Your task to perform on an android device: turn on priority inbox in the gmail app Image 0: 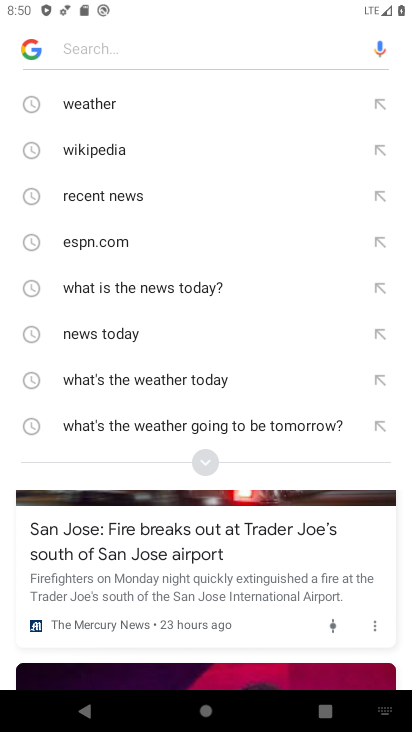
Step 0: press home button
Your task to perform on an android device: turn on priority inbox in the gmail app Image 1: 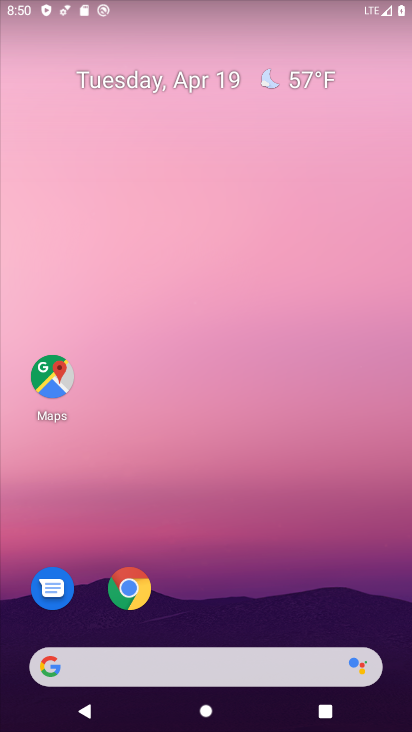
Step 1: drag from (252, 552) to (300, 114)
Your task to perform on an android device: turn on priority inbox in the gmail app Image 2: 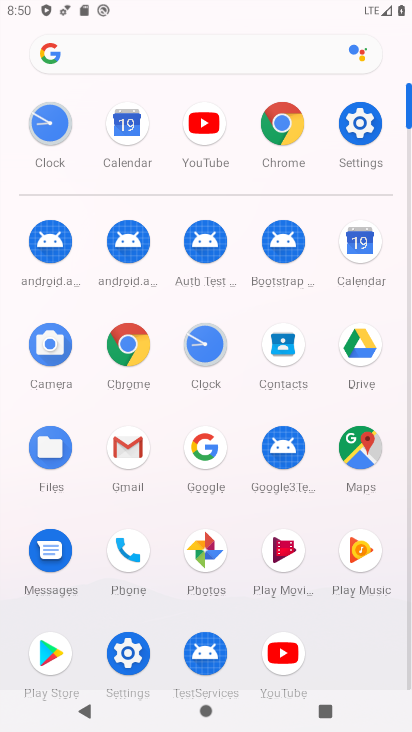
Step 2: click (122, 454)
Your task to perform on an android device: turn on priority inbox in the gmail app Image 3: 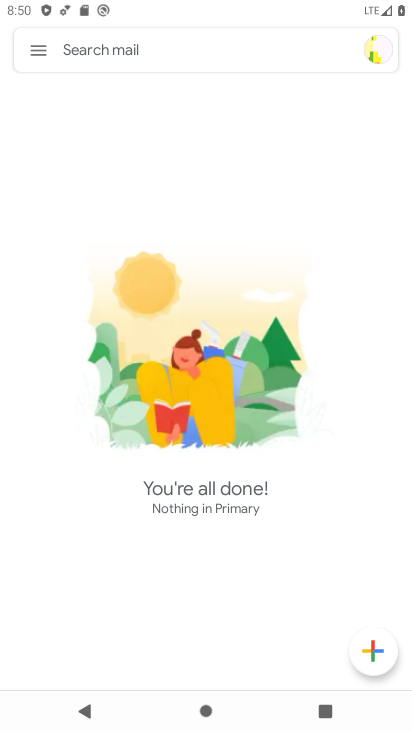
Step 3: click (26, 45)
Your task to perform on an android device: turn on priority inbox in the gmail app Image 4: 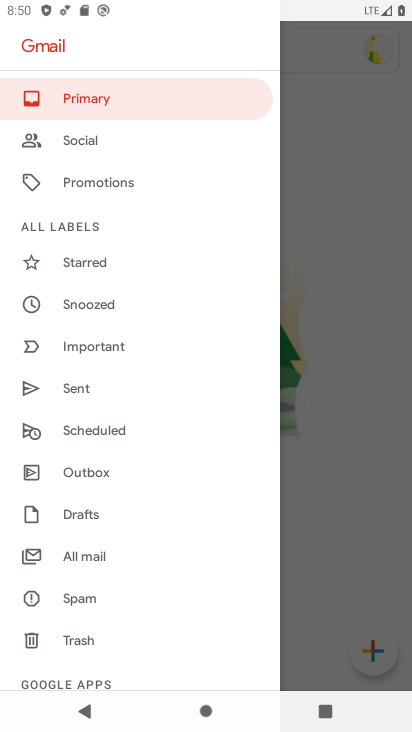
Step 4: drag from (54, 661) to (101, 449)
Your task to perform on an android device: turn on priority inbox in the gmail app Image 5: 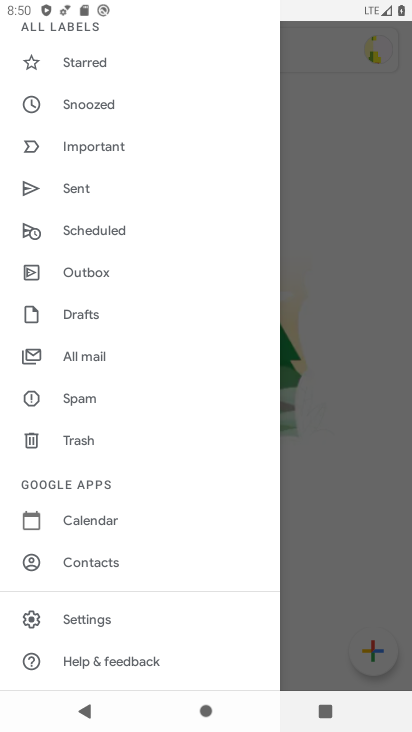
Step 5: click (127, 622)
Your task to perform on an android device: turn on priority inbox in the gmail app Image 6: 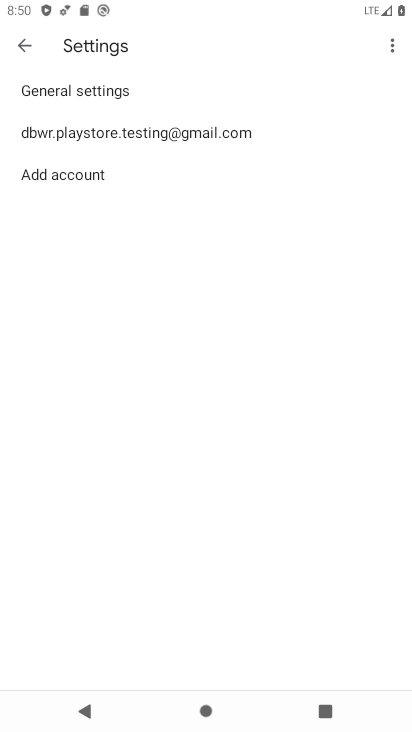
Step 6: click (175, 133)
Your task to perform on an android device: turn on priority inbox in the gmail app Image 7: 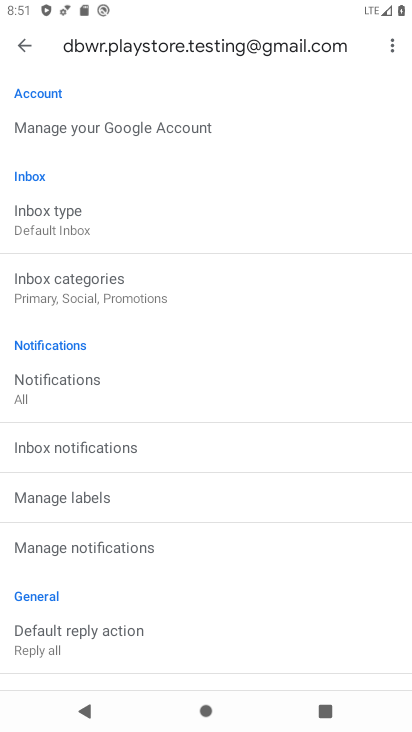
Step 7: click (51, 228)
Your task to perform on an android device: turn on priority inbox in the gmail app Image 8: 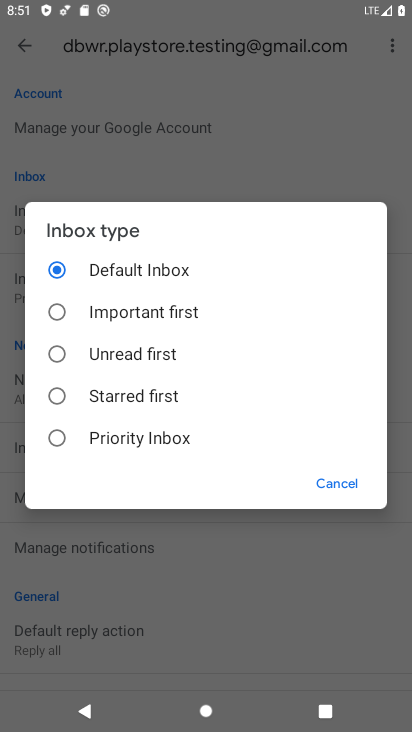
Step 8: click (116, 435)
Your task to perform on an android device: turn on priority inbox in the gmail app Image 9: 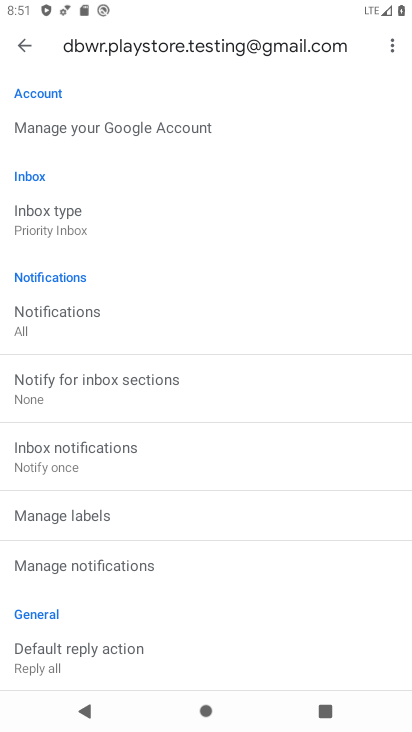
Step 9: task complete